Your task to perform on an android device: View the shopping cart on costco. Add beats solo 3 to the cart on costco Image 0: 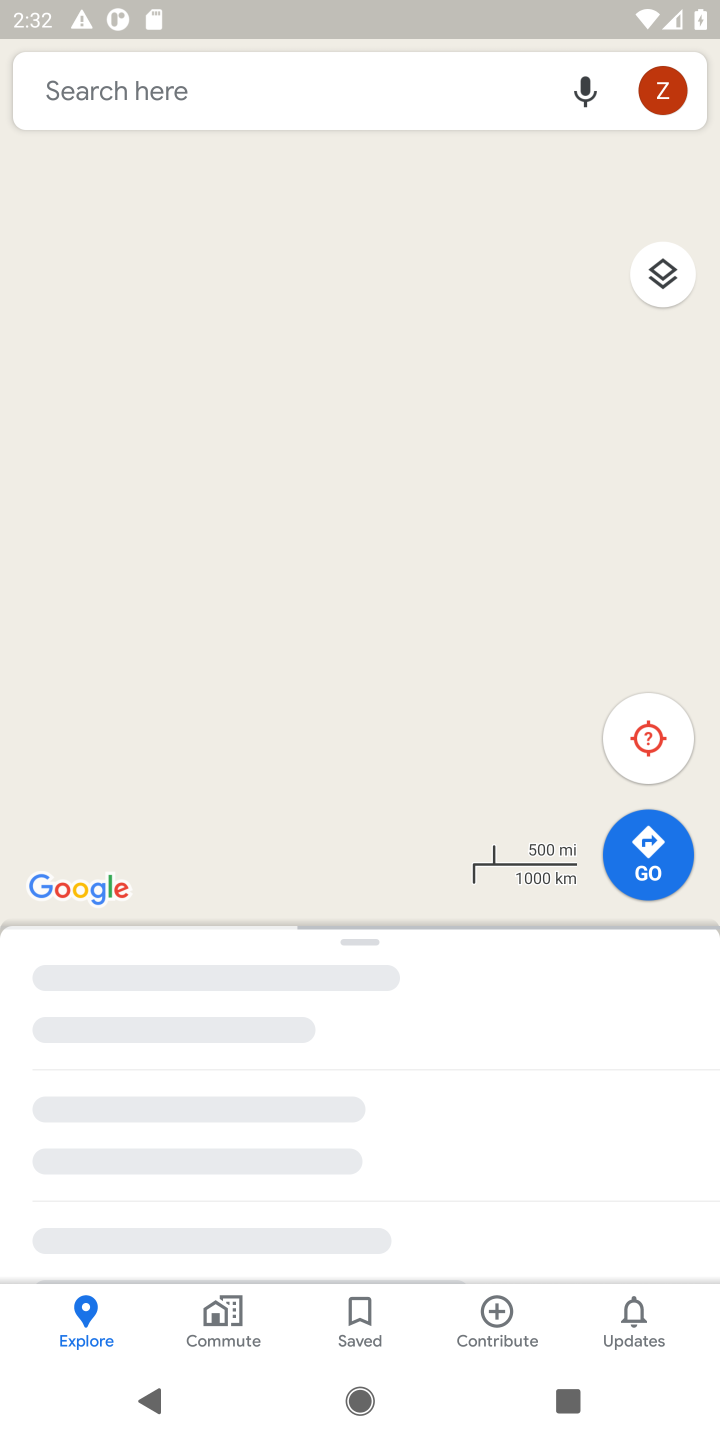
Step 0: press home button
Your task to perform on an android device: View the shopping cart on costco. Add beats solo 3 to the cart on costco Image 1: 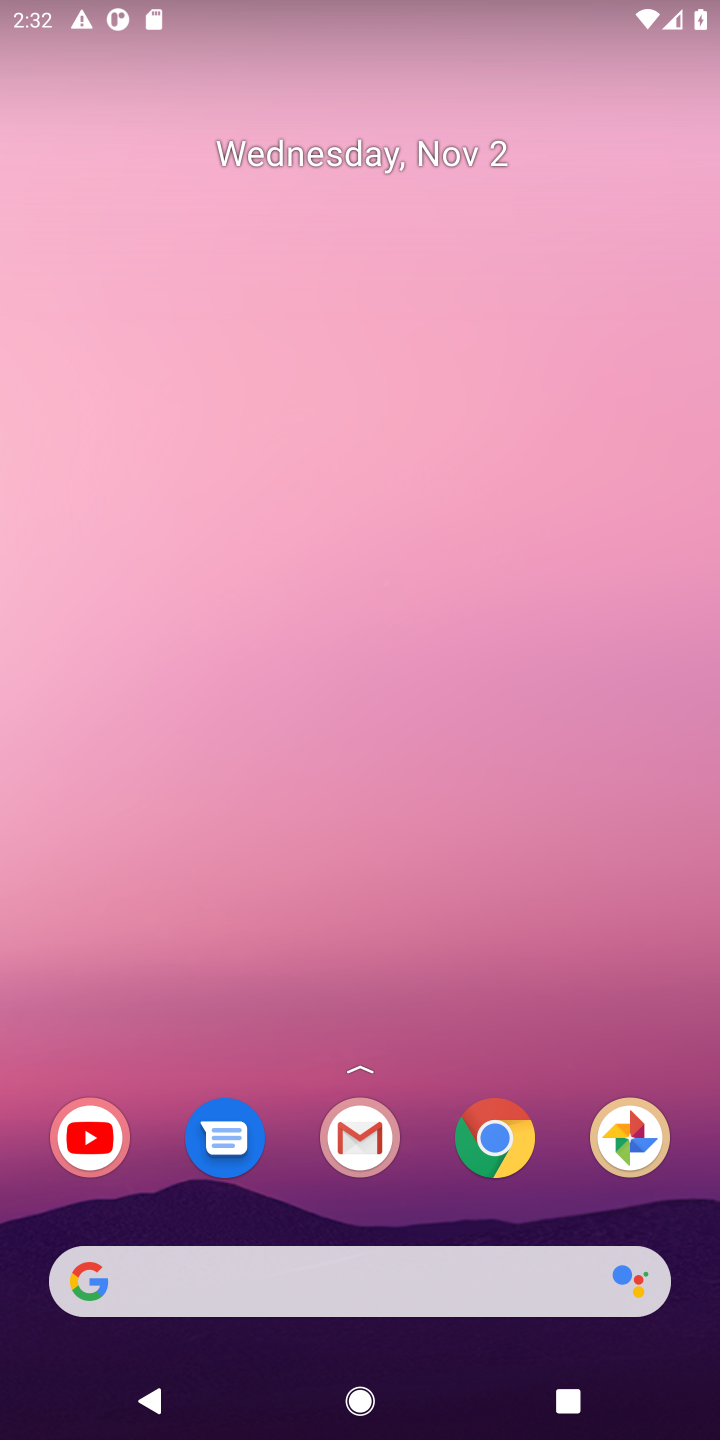
Step 1: click (193, 1280)
Your task to perform on an android device: View the shopping cart on costco. Add beats solo 3 to the cart on costco Image 2: 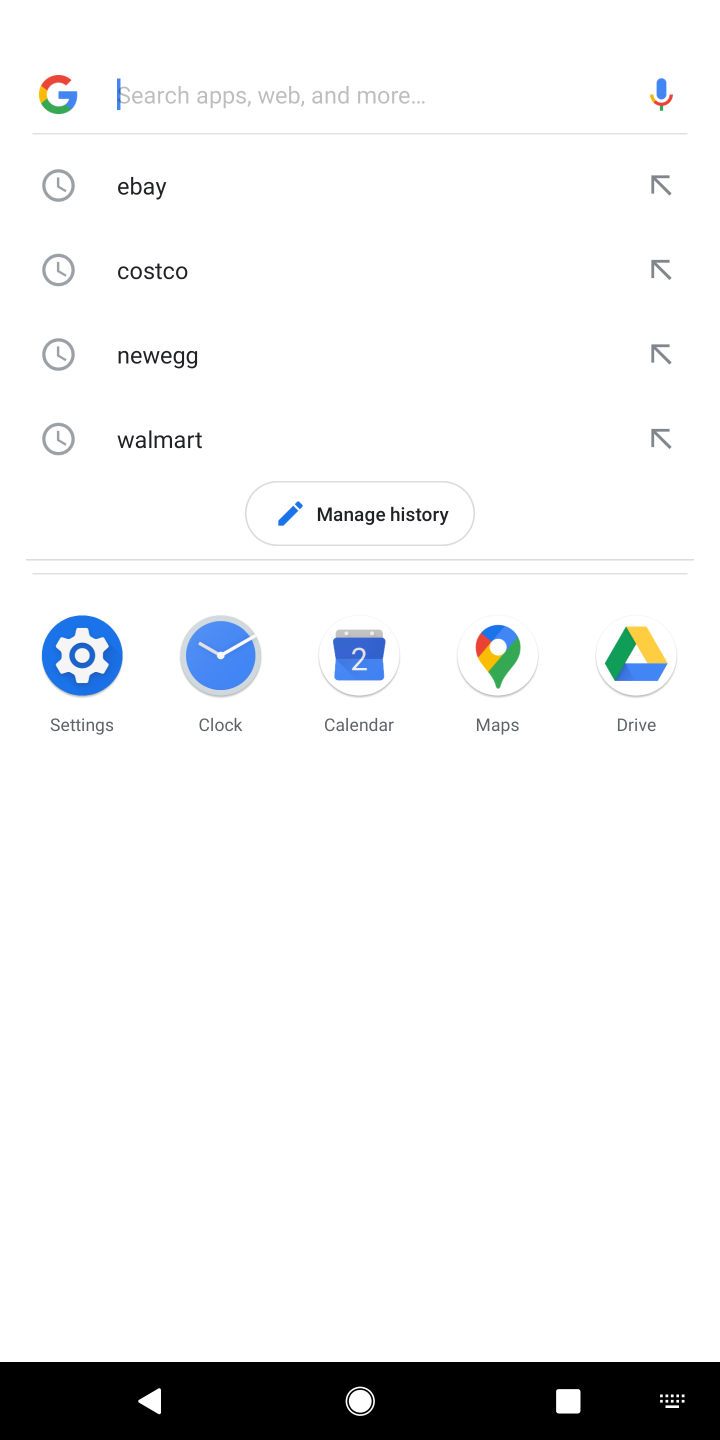
Step 2: type "costco"
Your task to perform on an android device: View the shopping cart on costco. Add beats solo 3 to the cart on costco Image 3: 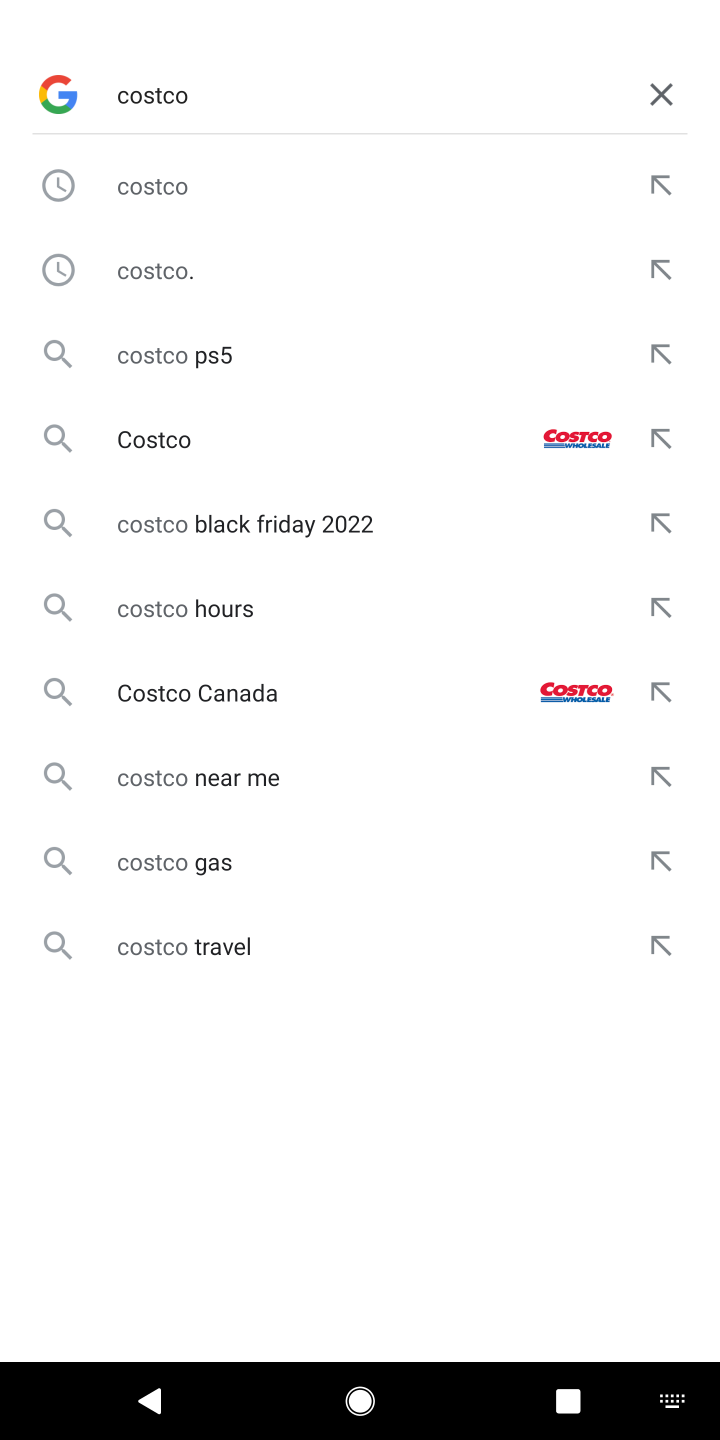
Step 3: press enter
Your task to perform on an android device: View the shopping cart on costco. Add beats solo 3 to the cart on costco Image 4: 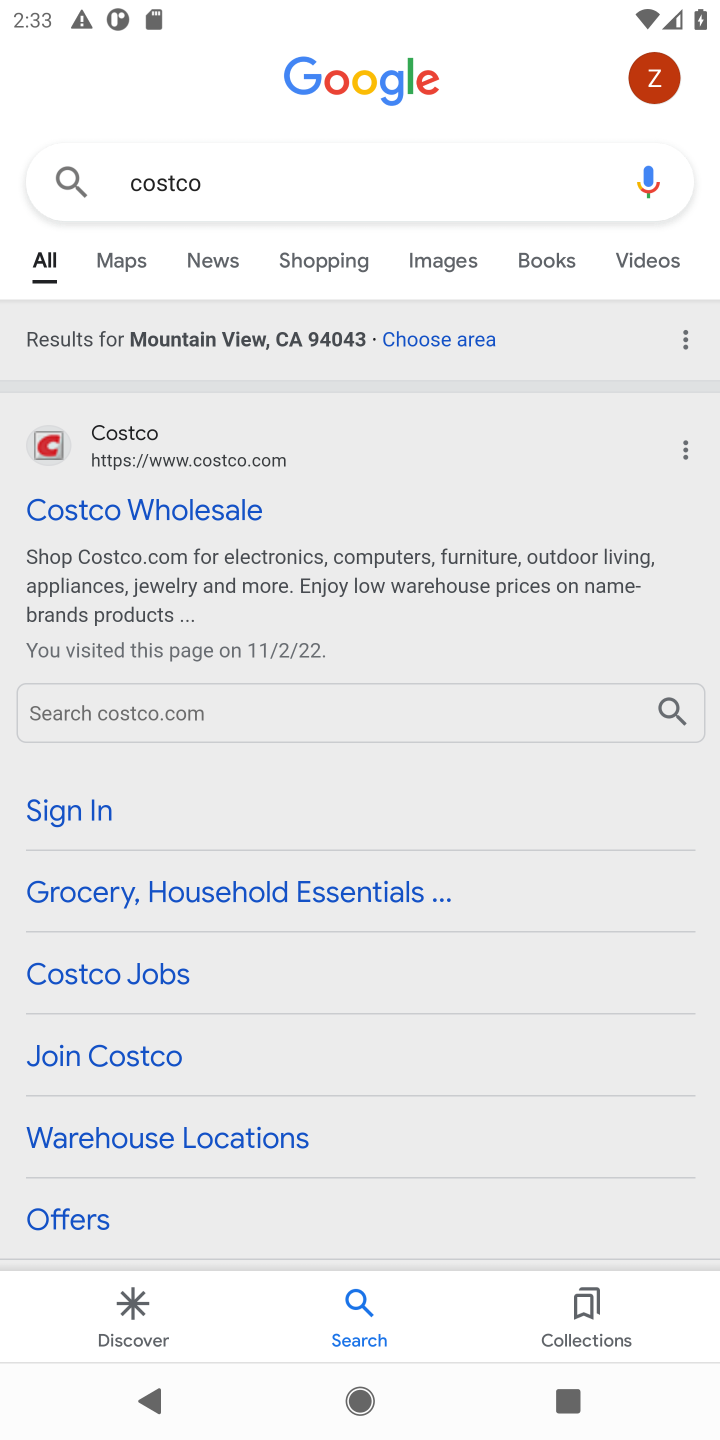
Step 4: click (177, 507)
Your task to perform on an android device: View the shopping cart on costco. Add beats solo 3 to the cart on costco Image 5: 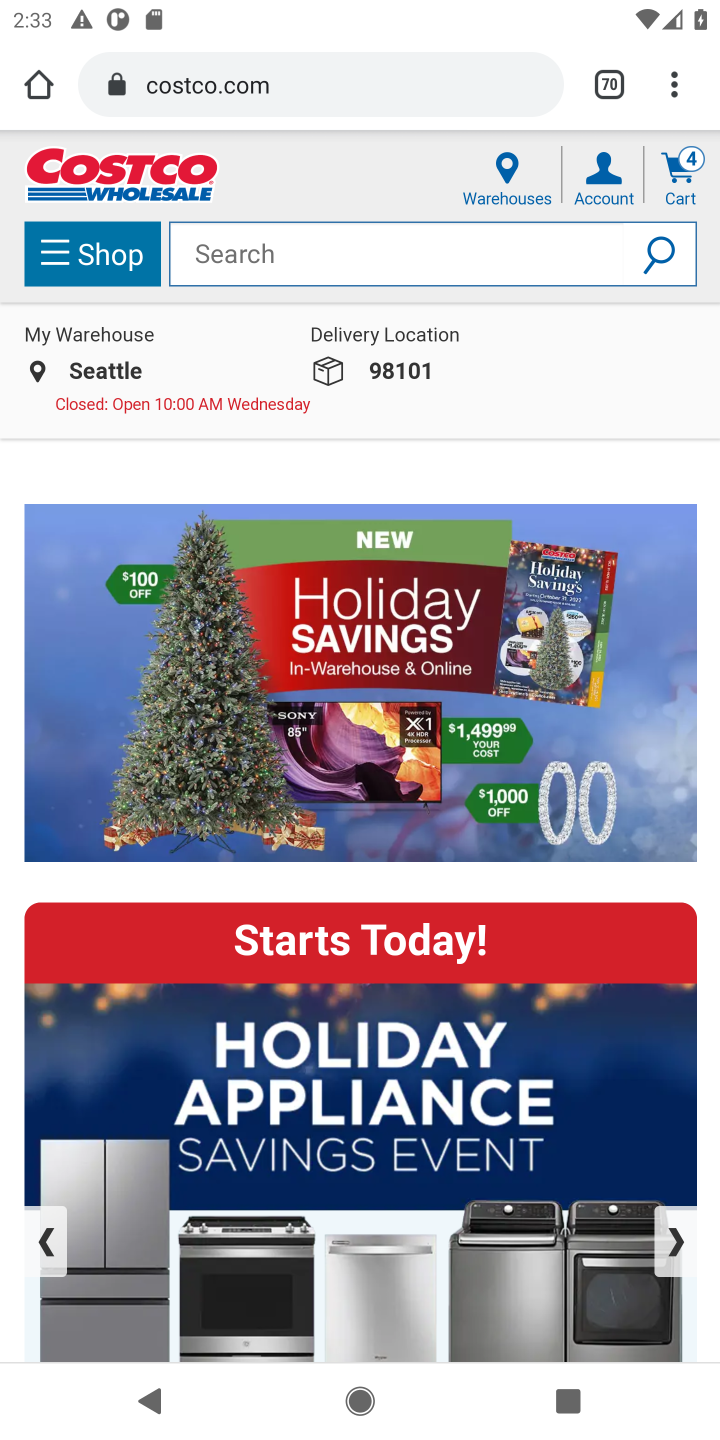
Step 5: click (671, 173)
Your task to perform on an android device: View the shopping cart on costco. Add beats solo 3 to the cart on costco Image 6: 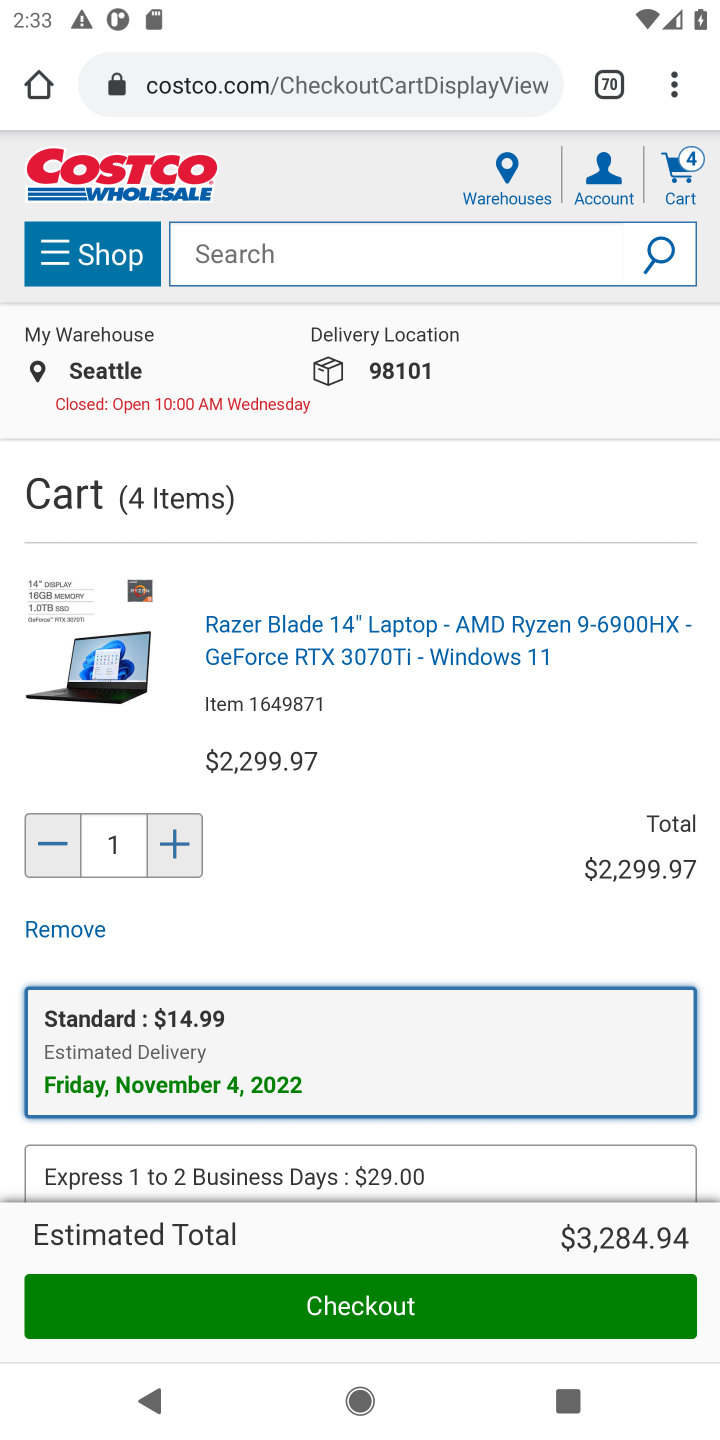
Step 6: click (248, 250)
Your task to perform on an android device: View the shopping cart on costco. Add beats solo 3 to the cart on costco Image 7: 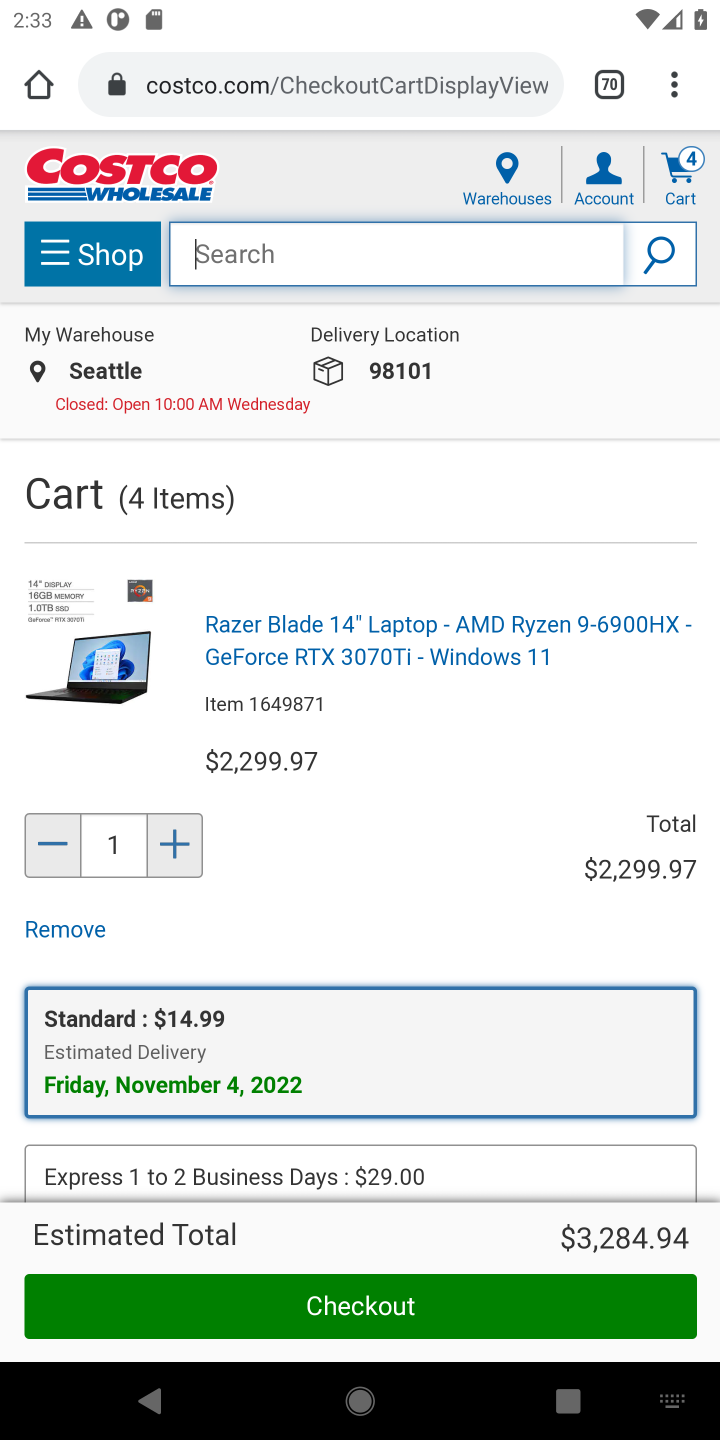
Step 7: press enter
Your task to perform on an android device: View the shopping cart on costco. Add beats solo 3 to the cart on costco Image 8: 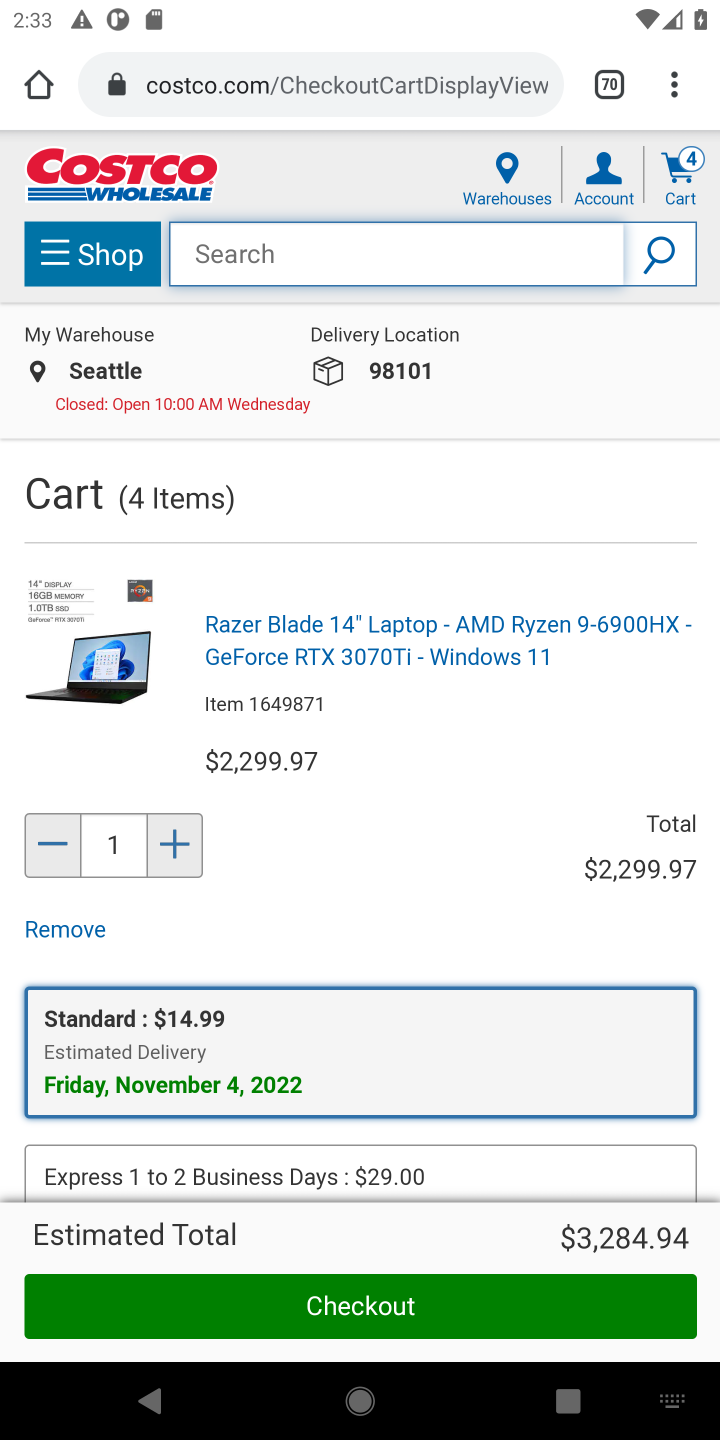
Step 8: type "beats solo 3"
Your task to perform on an android device: View the shopping cart on costco. Add beats solo 3 to the cart on costco Image 9: 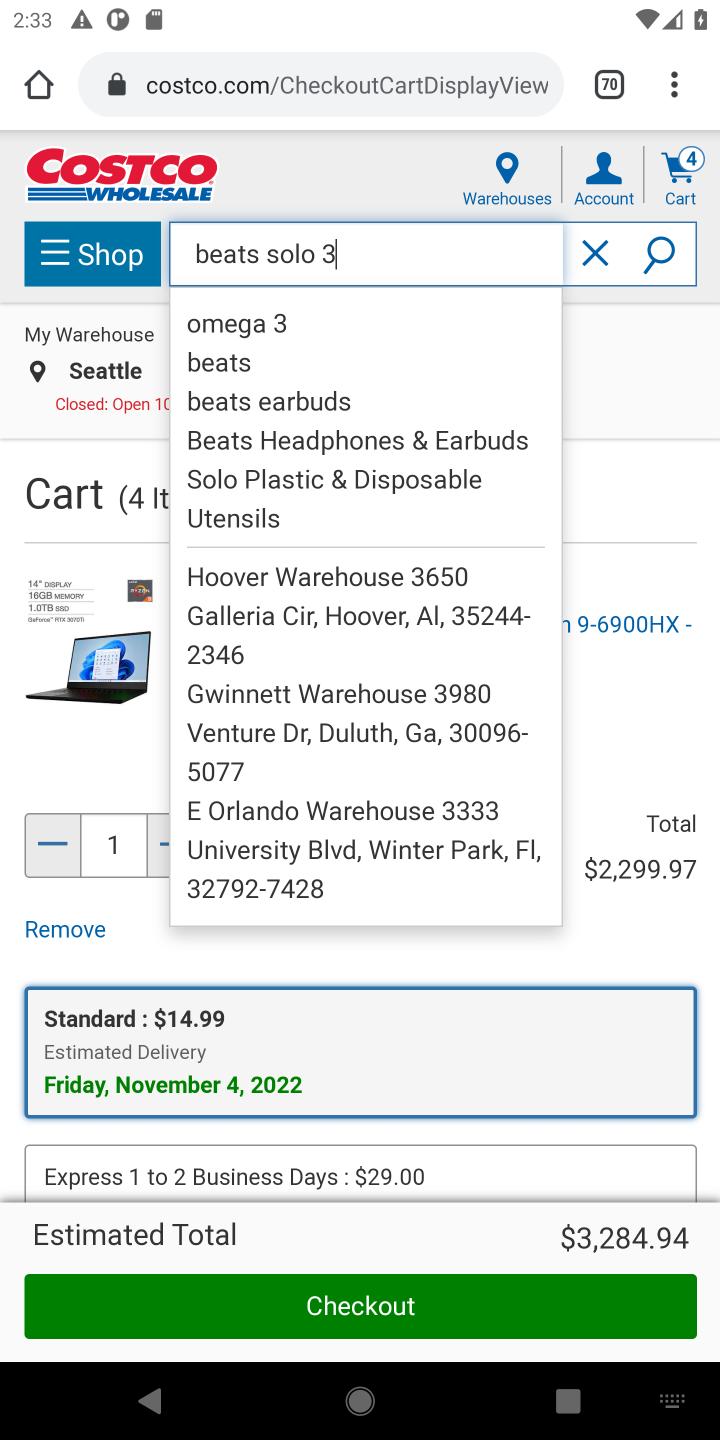
Step 9: click (658, 236)
Your task to perform on an android device: View the shopping cart on costco. Add beats solo 3 to the cart on costco Image 10: 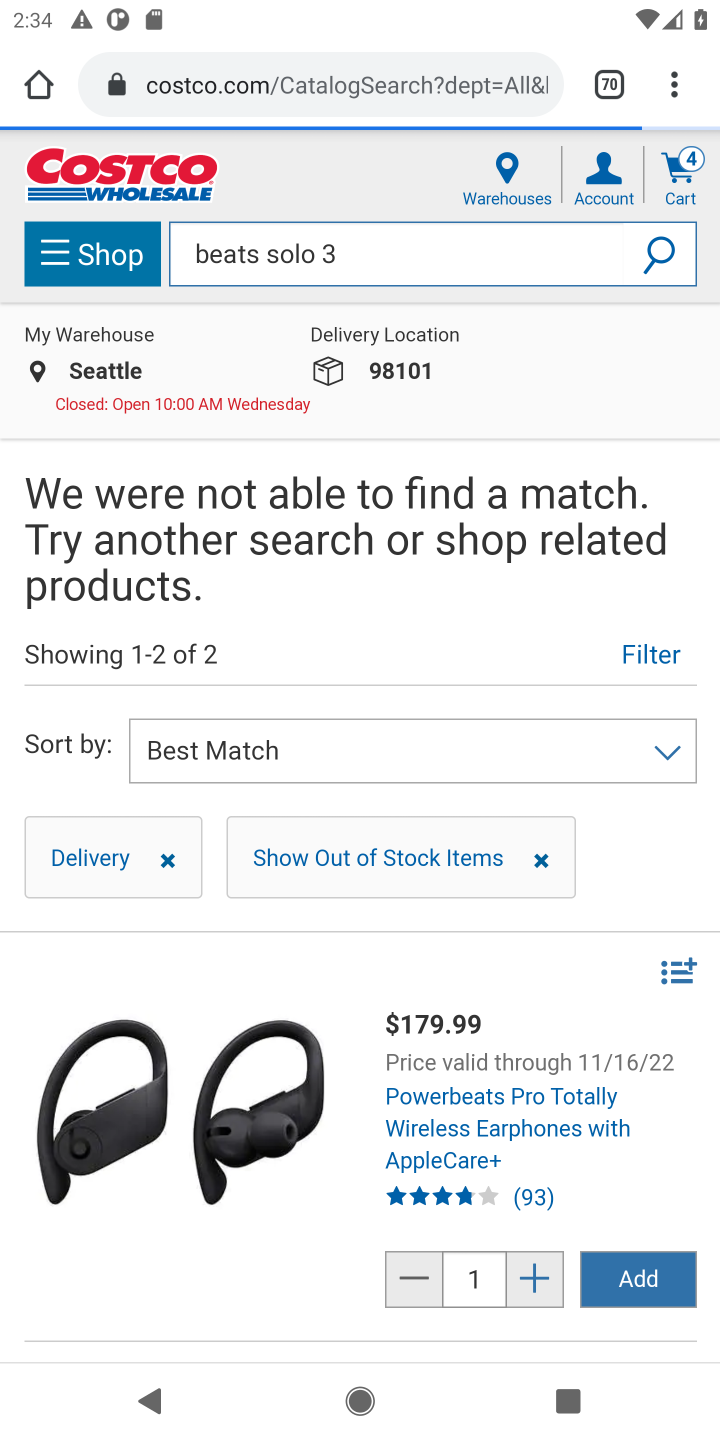
Step 10: task complete